Your task to perform on an android device: add a contact Image 0: 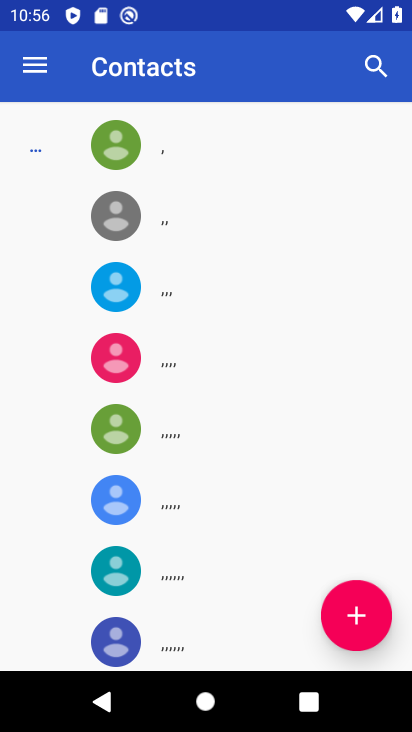
Step 0: click (358, 626)
Your task to perform on an android device: add a contact Image 1: 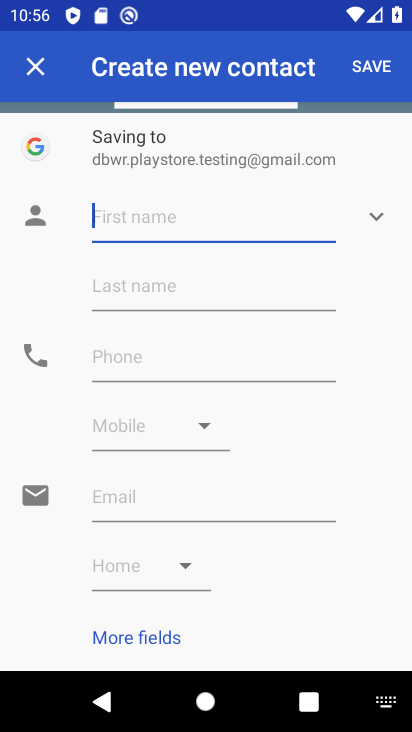
Step 1: type "Vidyadhar"
Your task to perform on an android device: add a contact Image 2: 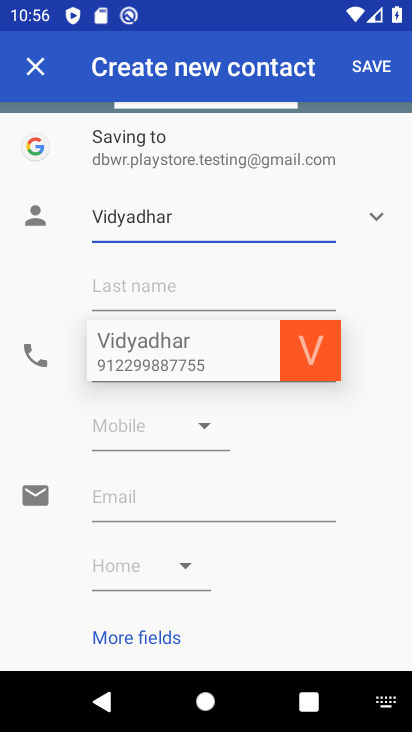
Step 2: click (209, 288)
Your task to perform on an android device: add a contact Image 3: 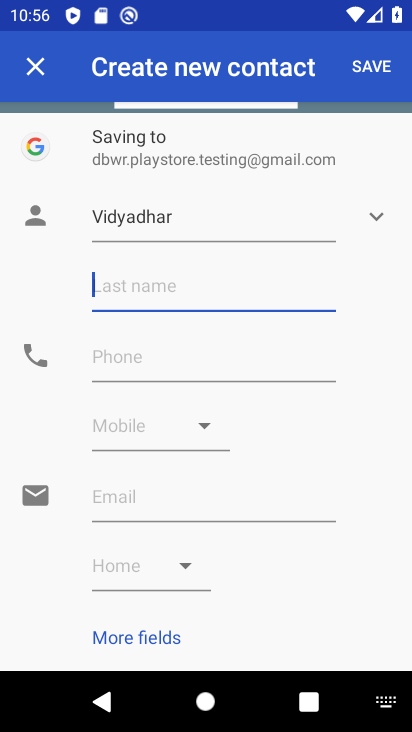
Step 3: type "Tripathi"
Your task to perform on an android device: add a contact Image 4: 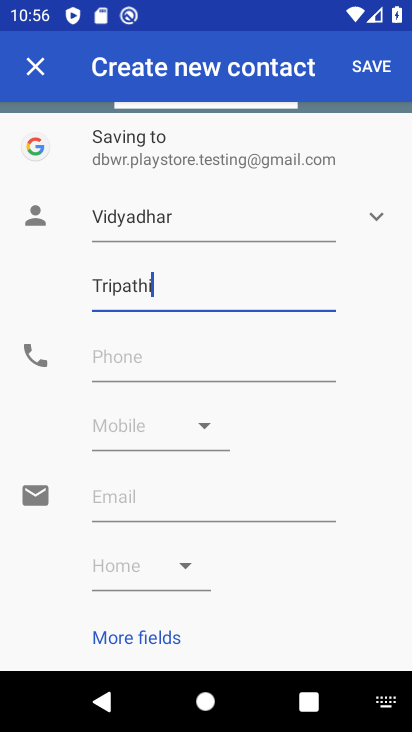
Step 4: click (250, 373)
Your task to perform on an android device: add a contact Image 5: 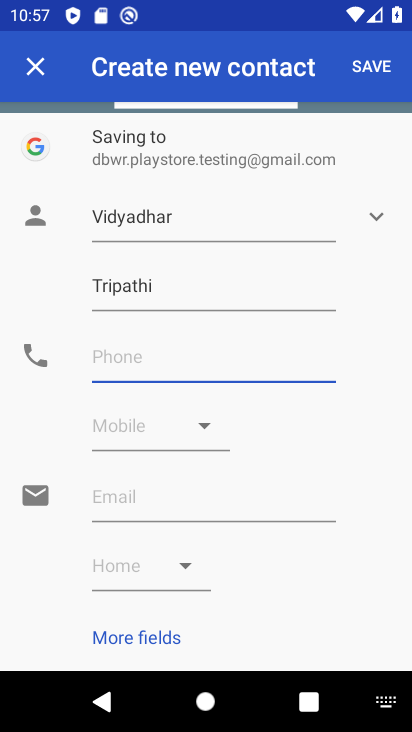
Step 5: type "0112230055"
Your task to perform on an android device: add a contact Image 6: 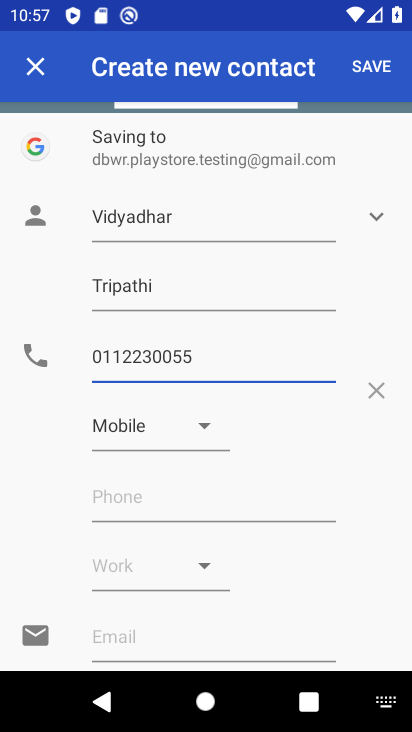
Step 6: click (377, 69)
Your task to perform on an android device: add a contact Image 7: 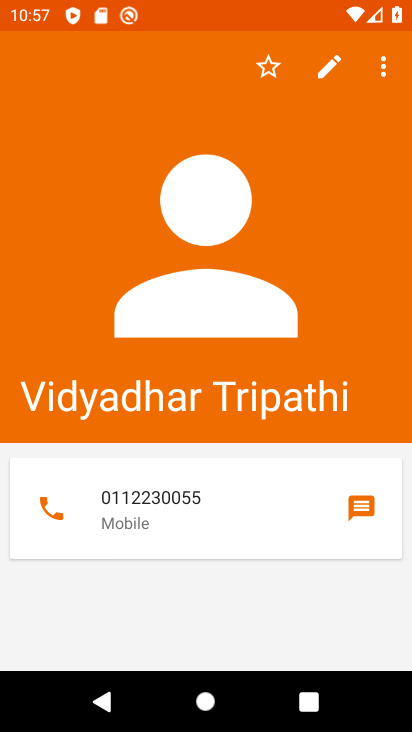
Step 7: task complete